Your task to perform on an android device: Open wifi settings Image 0: 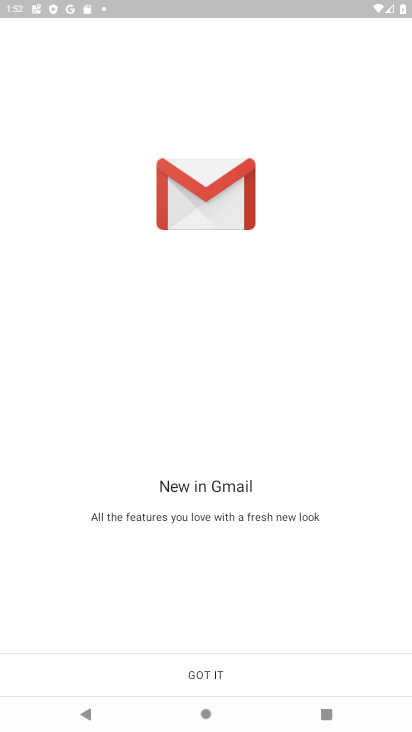
Step 0: press home button
Your task to perform on an android device: Open wifi settings Image 1: 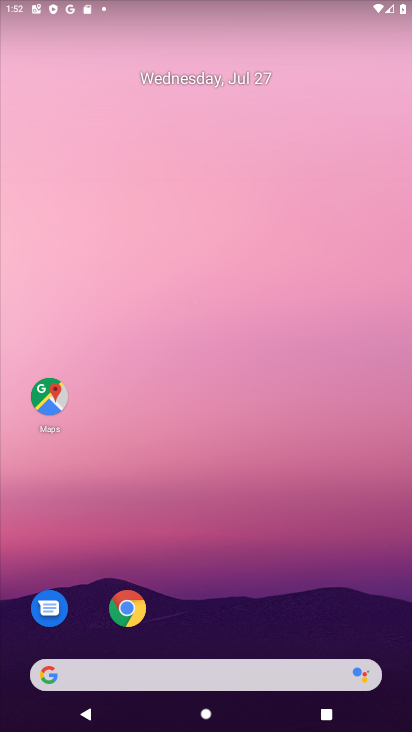
Step 1: drag from (45, 689) to (323, 3)
Your task to perform on an android device: Open wifi settings Image 2: 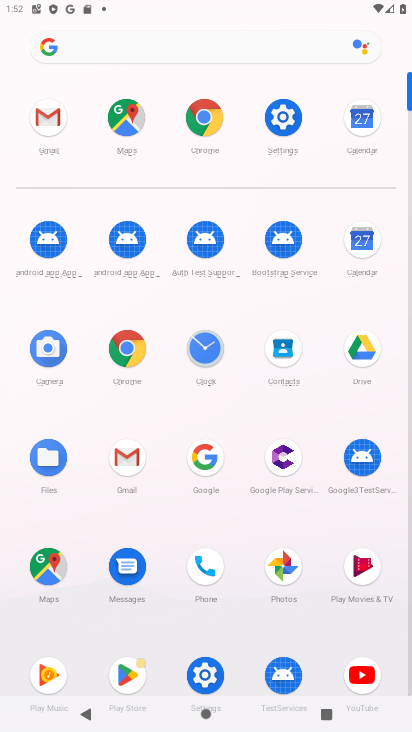
Step 2: click (195, 674)
Your task to perform on an android device: Open wifi settings Image 3: 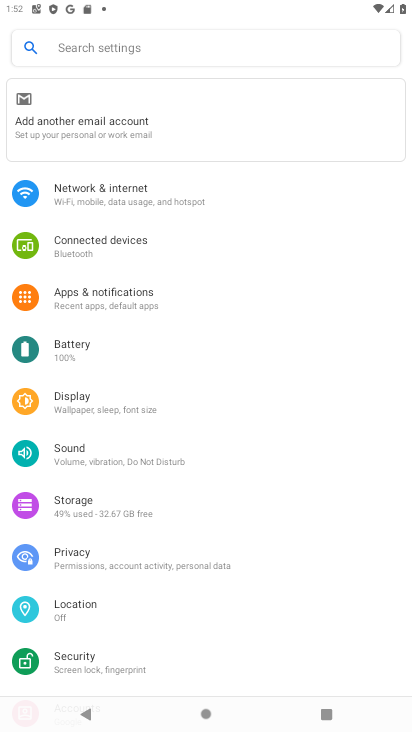
Step 3: click (148, 173)
Your task to perform on an android device: Open wifi settings Image 4: 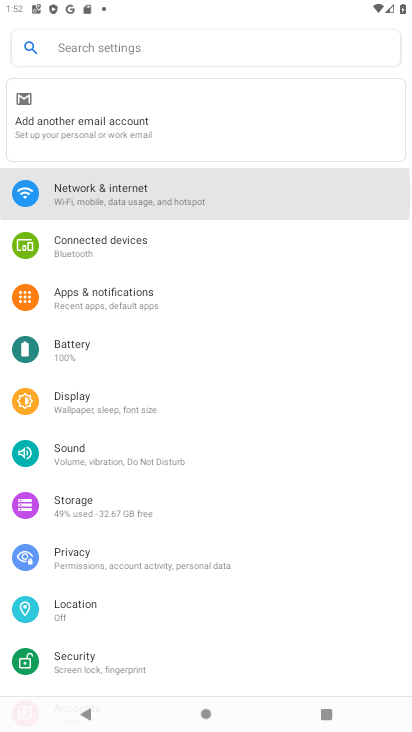
Step 4: click (144, 205)
Your task to perform on an android device: Open wifi settings Image 5: 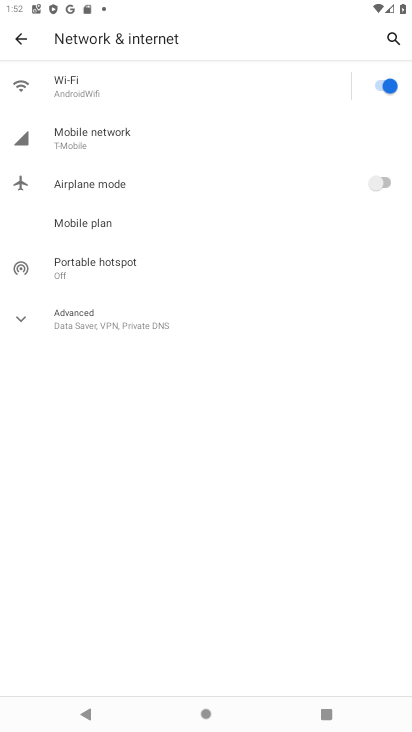
Step 5: task complete